Your task to perform on an android device: Search for seafood restaurants on Google Maps Image 0: 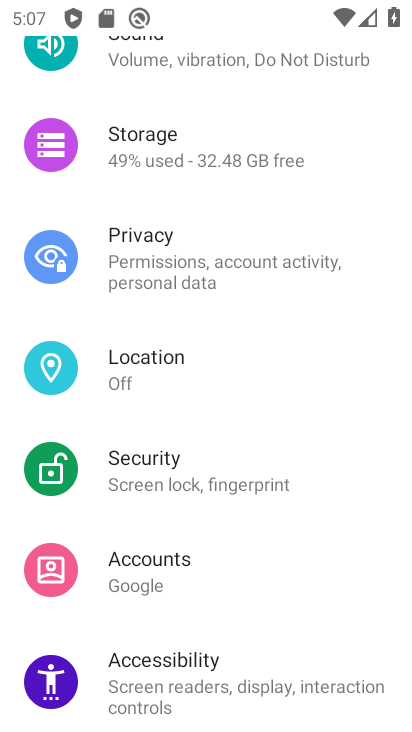
Step 0: press home button
Your task to perform on an android device: Search for seafood restaurants on Google Maps Image 1: 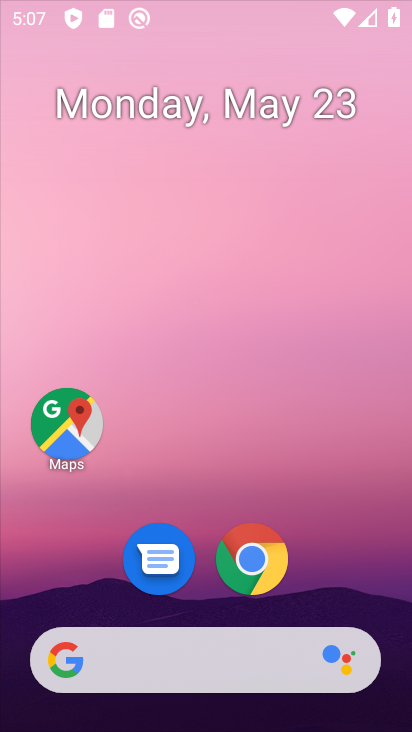
Step 1: drag from (282, 640) to (297, 26)
Your task to perform on an android device: Search for seafood restaurants on Google Maps Image 2: 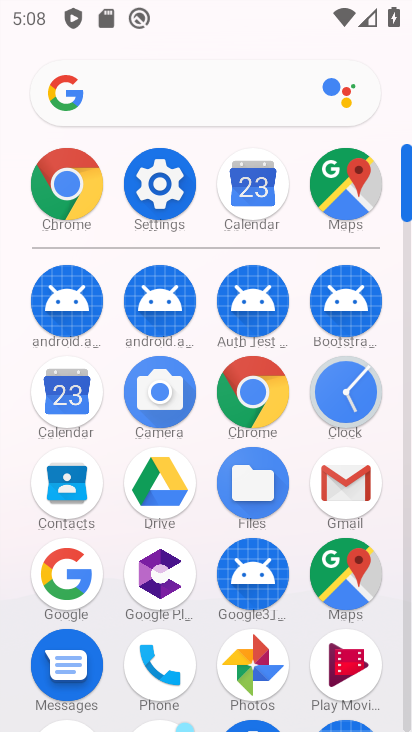
Step 2: click (336, 556)
Your task to perform on an android device: Search for seafood restaurants on Google Maps Image 3: 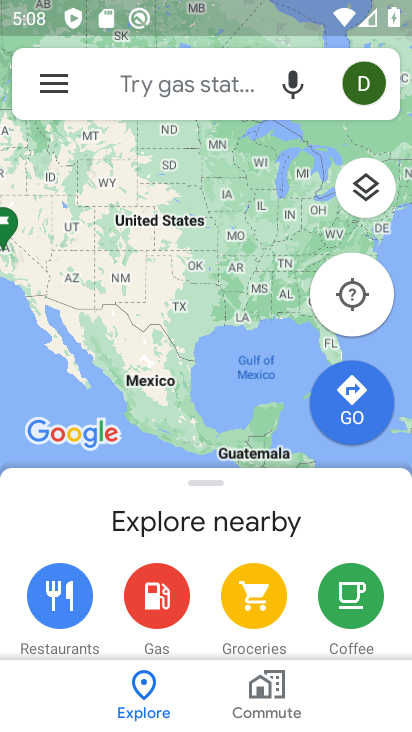
Step 3: click (115, 77)
Your task to perform on an android device: Search for seafood restaurants on Google Maps Image 4: 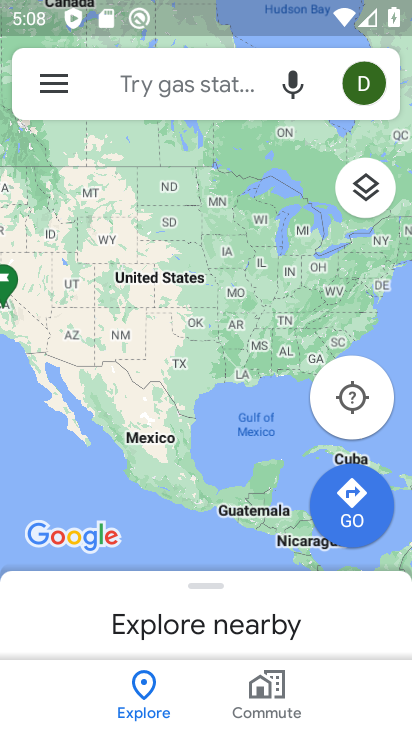
Step 4: click (184, 105)
Your task to perform on an android device: Search for seafood restaurants on Google Maps Image 5: 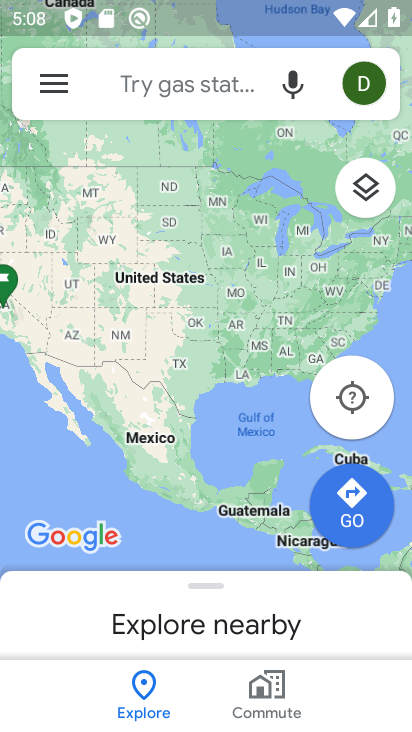
Step 5: click (184, 105)
Your task to perform on an android device: Search for seafood restaurants on Google Maps Image 6: 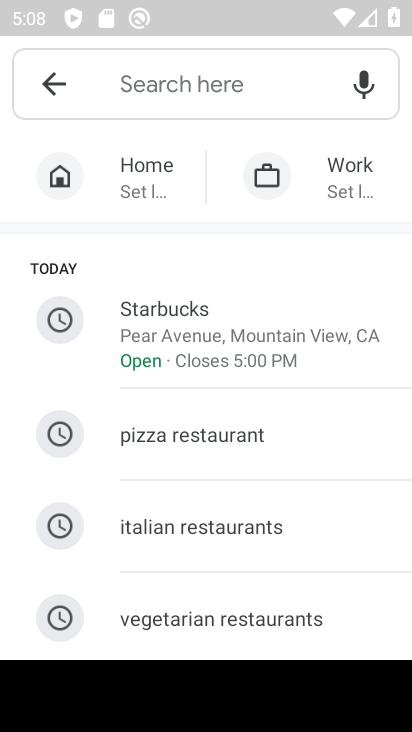
Step 6: type "seafood restaurant"
Your task to perform on an android device: Search for seafood restaurants on Google Maps Image 7: 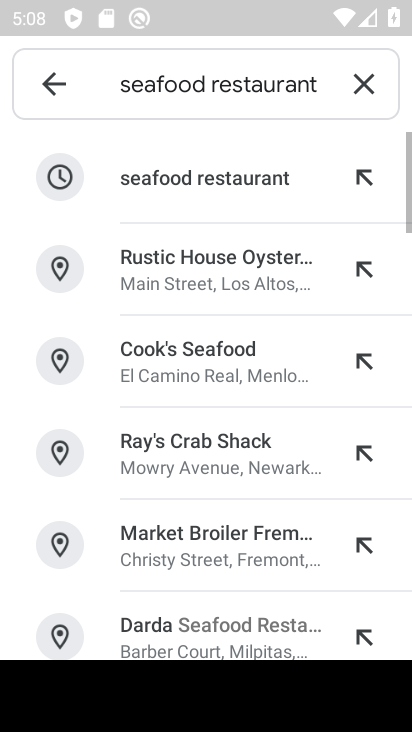
Step 7: click (291, 188)
Your task to perform on an android device: Search for seafood restaurants on Google Maps Image 8: 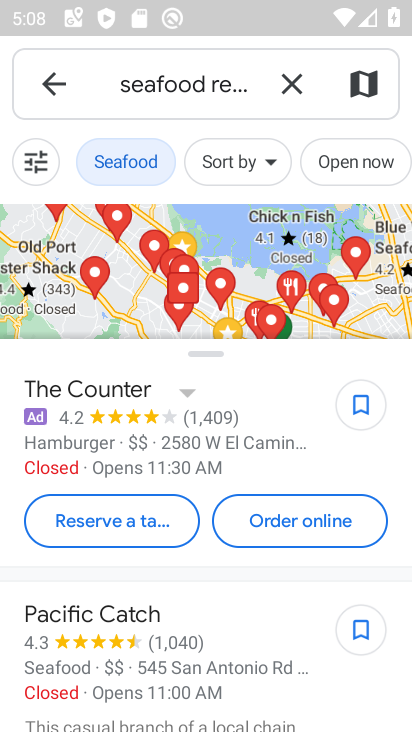
Step 8: task complete